Your task to perform on an android device: empty trash in google photos Image 0: 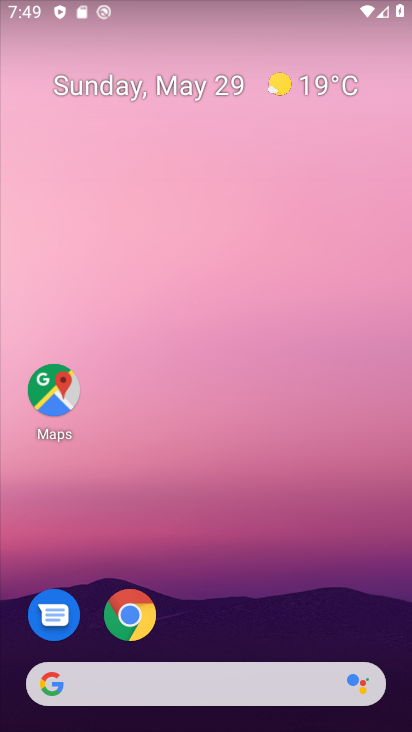
Step 0: drag from (93, 731) to (41, 37)
Your task to perform on an android device: empty trash in google photos Image 1: 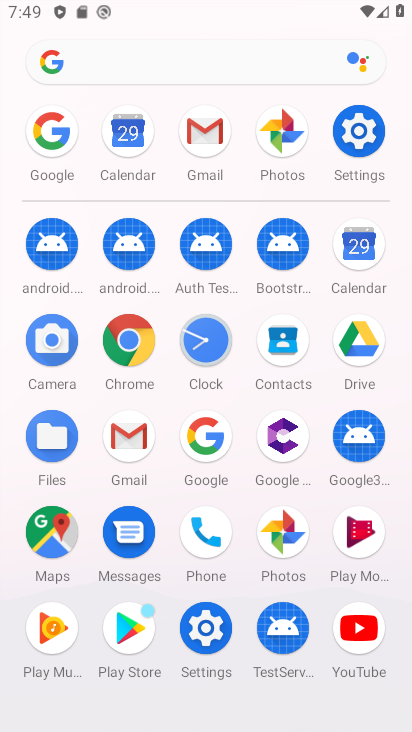
Step 1: click (291, 546)
Your task to perform on an android device: empty trash in google photos Image 2: 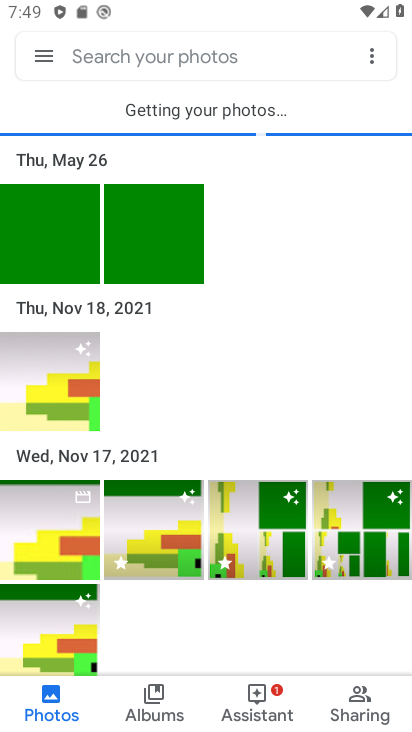
Step 2: click (50, 67)
Your task to perform on an android device: empty trash in google photos Image 3: 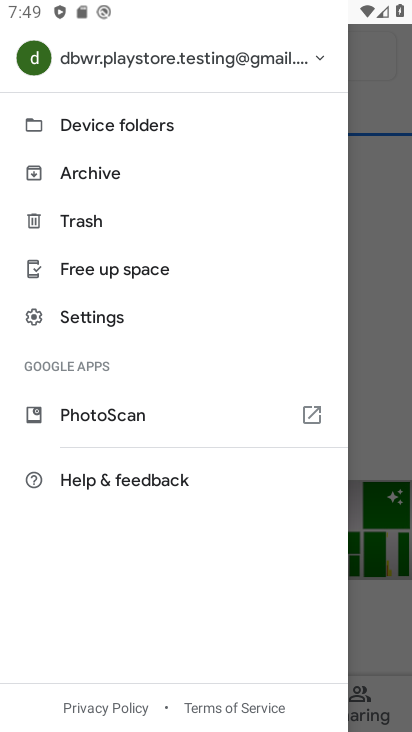
Step 3: click (53, 222)
Your task to perform on an android device: empty trash in google photos Image 4: 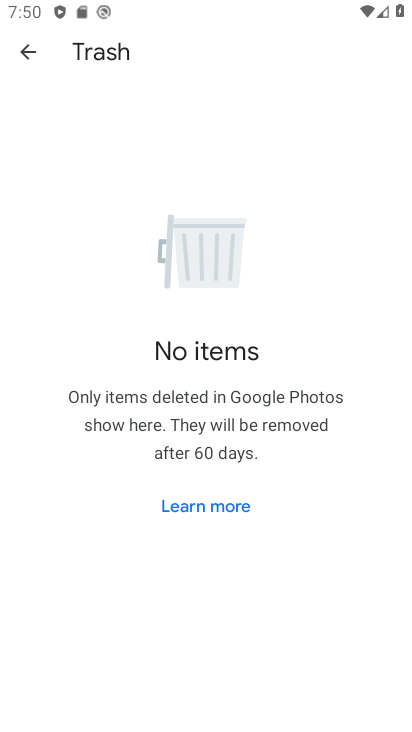
Step 4: task complete